Your task to perform on an android device: turn off location history Image 0: 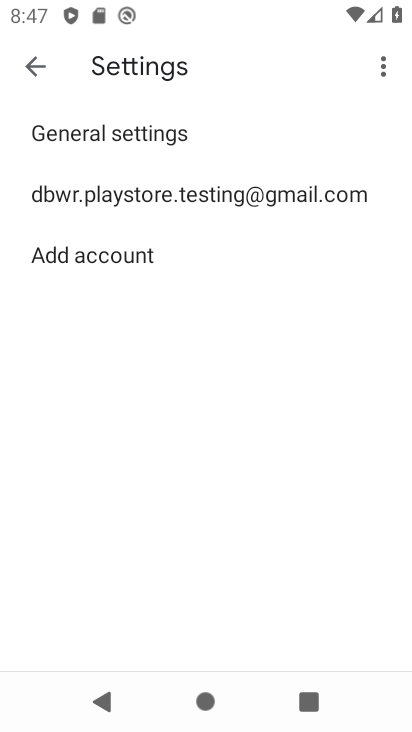
Step 0: press home button
Your task to perform on an android device: turn off location history Image 1: 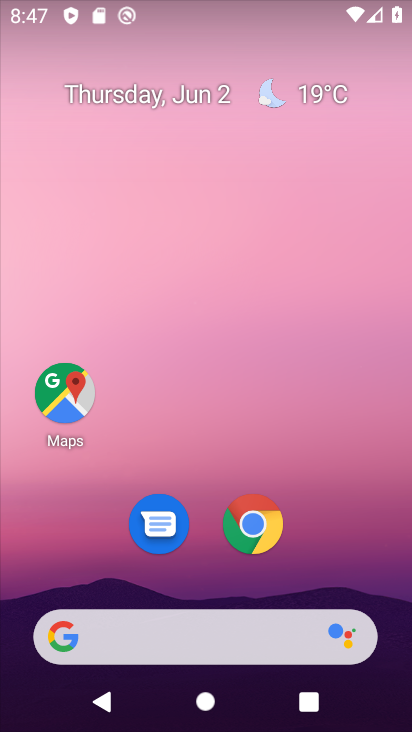
Step 1: drag from (315, 496) to (315, 26)
Your task to perform on an android device: turn off location history Image 2: 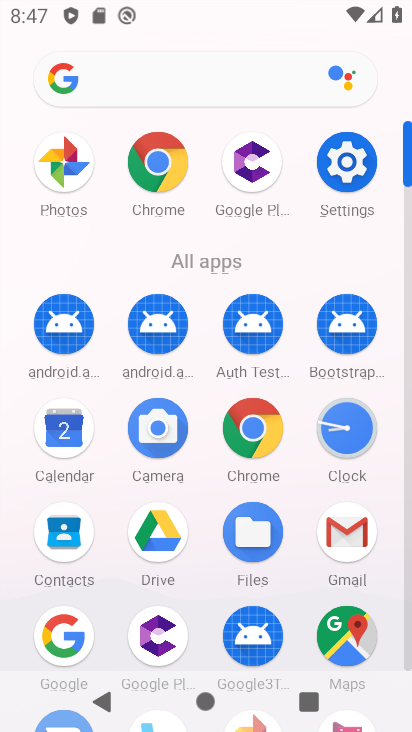
Step 2: click (351, 164)
Your task to perform on an android device: turn off location history Image 3: 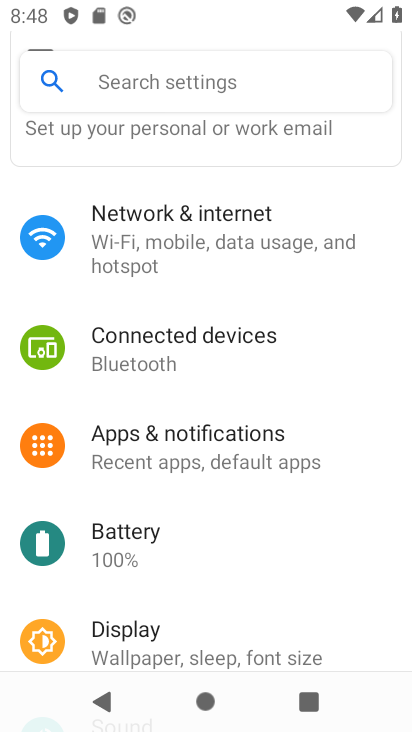
Step 3: drag from (241, 588) to (277, 137)
Your task to perform on an android device: turn off location history Image 4: 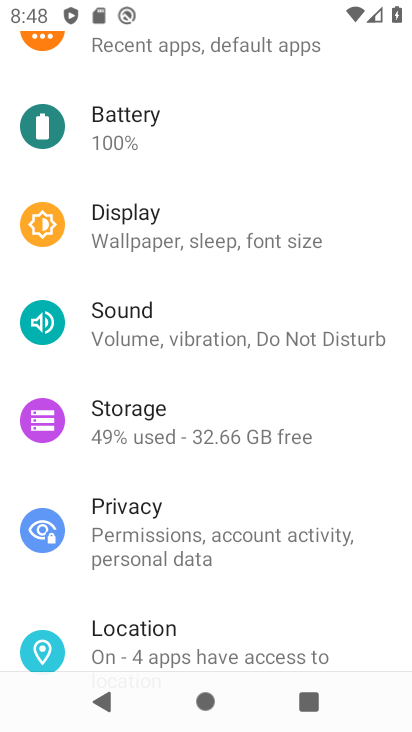
Step 4: click (199, 643)
Your task to perform on an android device: turn off location history Image 5: 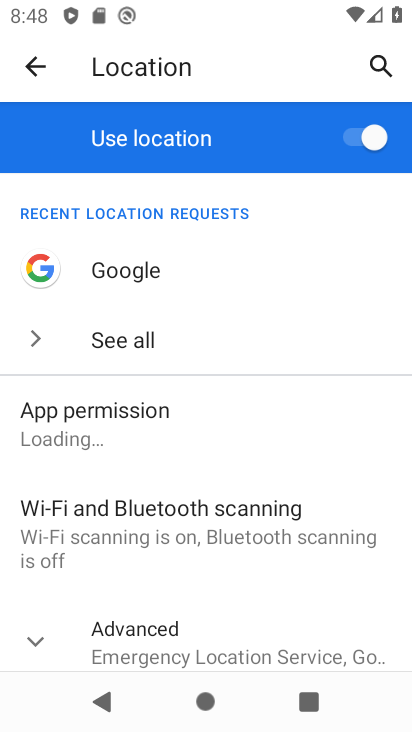
Step 5: drag from (233, 581) to (257, 435)
Your task to perform on an android device: turn off location history Image 6: 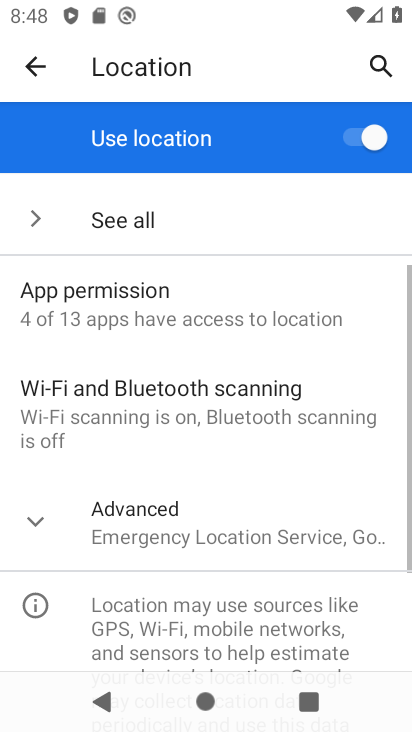
Step 6: click (32, 519)
Your task to perform on an android device: turn off location history Image 7: 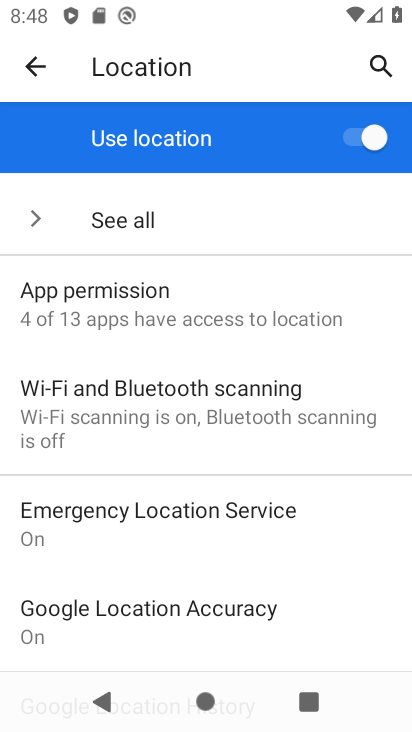
Step 7: drag from (206, 559) to (212, 294)
Your task to perform on an android device: turn off location history Image 8: 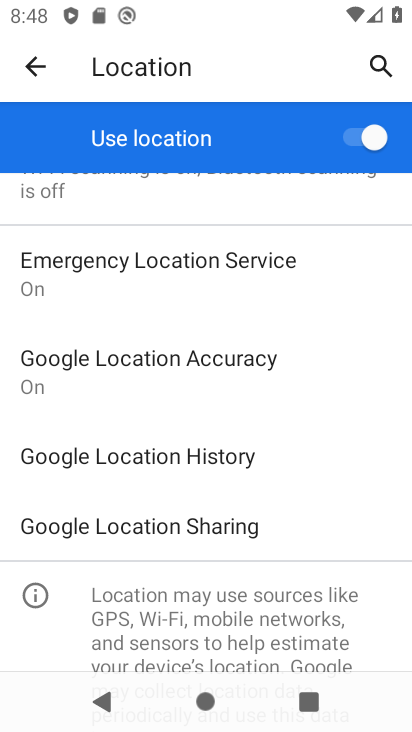
Step 8: click (212, 441)
Your task to perform on an android device: turn off location history Image 9: 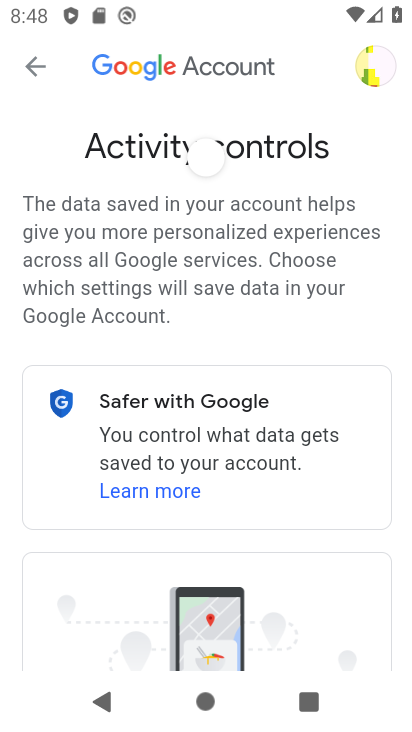
Step 9: drag from (255, 530) to (284, 76)
Your task to perform on an android device: turn off location history Image 10: 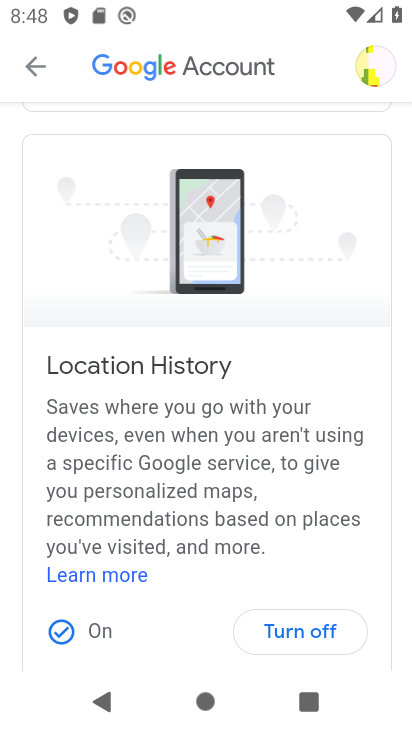
Step 10: click (330, 627)
Your task to perform on an android device: turn off location history Image 11: 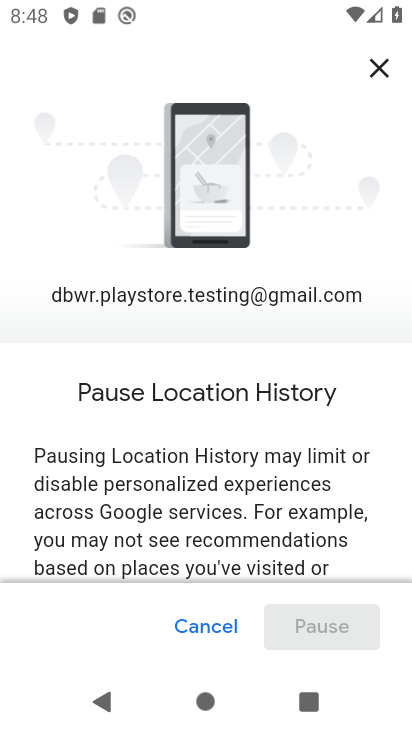
Step 11: drag from (296, 522) to (289, 9)
Your task to perform on an android device: turn off location history Image 12: 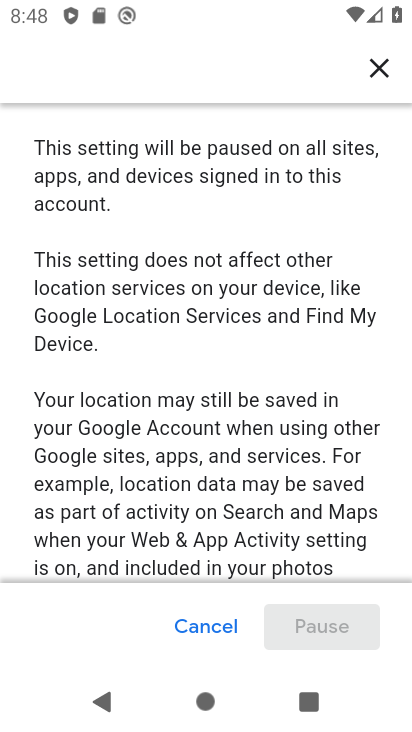
Step 12: drag from (265, 418) to (262, 75)
Your task to perform on an android device: turn off location history Image 13: 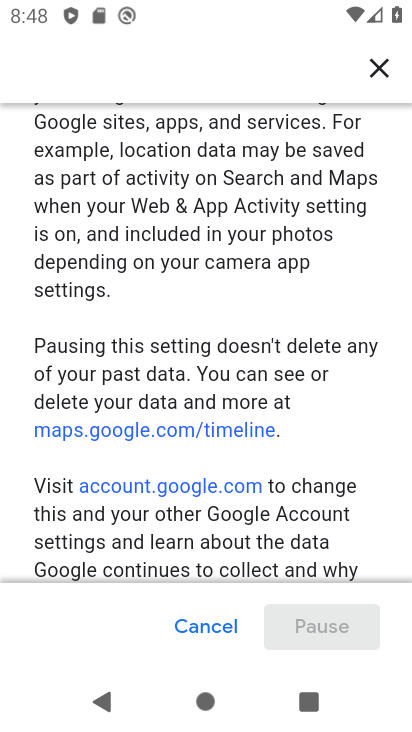
Step 13: drag from (290, 508) to (293, 170)
Your task to perform on an android device: turn off location history Image 14: 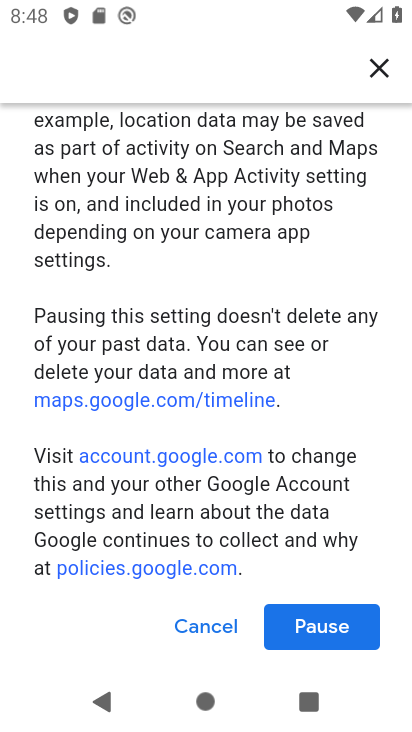
Step 14: click (337, 618)
Your task to perform on an android device: turn off location history Image 15: 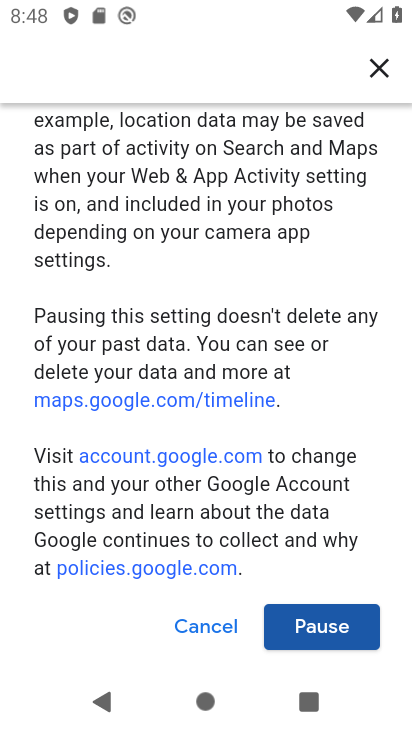
Step 15: click (337, 620)
Your task to perform on an android device: turn off location history Image 16: 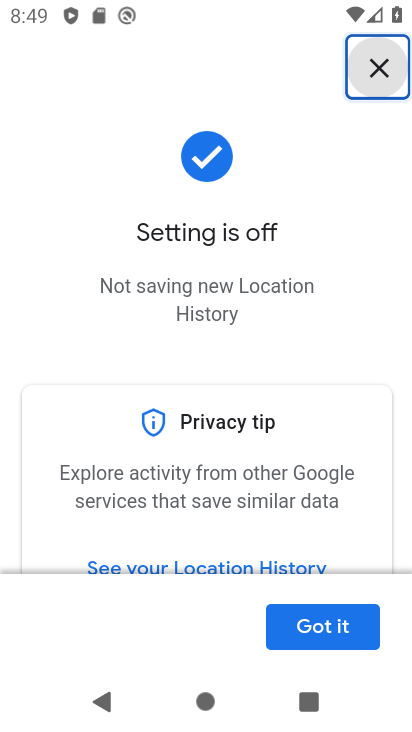
Step 16: click (337, 620)
Your task to perform on an android device: turn off location history Image 17: 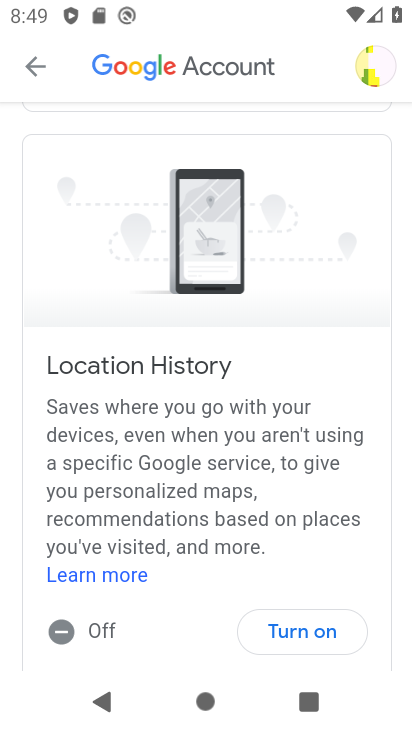
Step 17: task complete